Your task to perform on an android device: Open the Play Movies app and select the watchlist tab. Image 0: 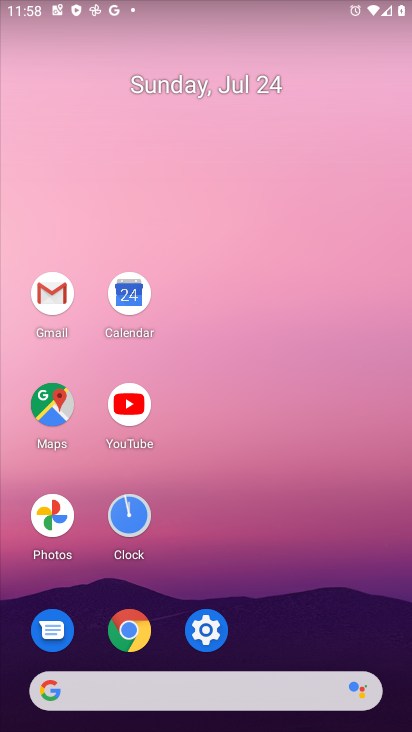
Step 0: drag from (272, 583) to (262, 33)
Your task to perform on an android device: Open the Play Movies app and select the watchlist tab. Image 1: 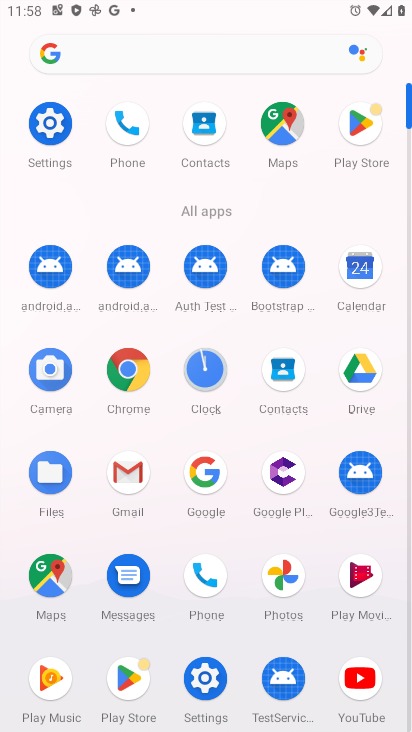
Step 1: click (357, 581)
Your task to perform on an android device: Open the Play Movies app and select the watchlist tab. Image 2: 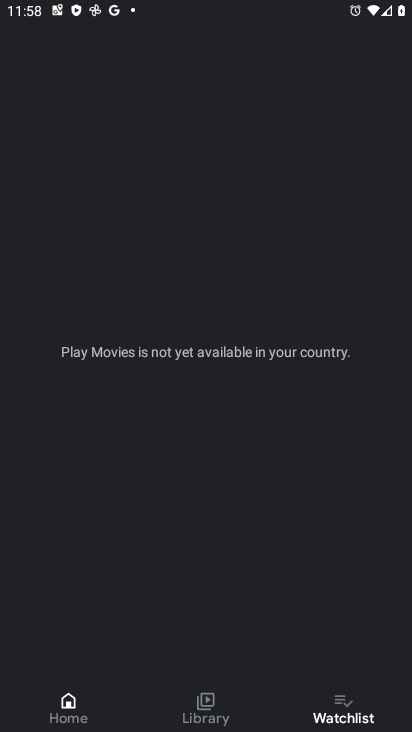
Step 2: click (334, 711)
Your task to perform on an android device: Open the Play Movies app and select the watchlist tab. Image 3: 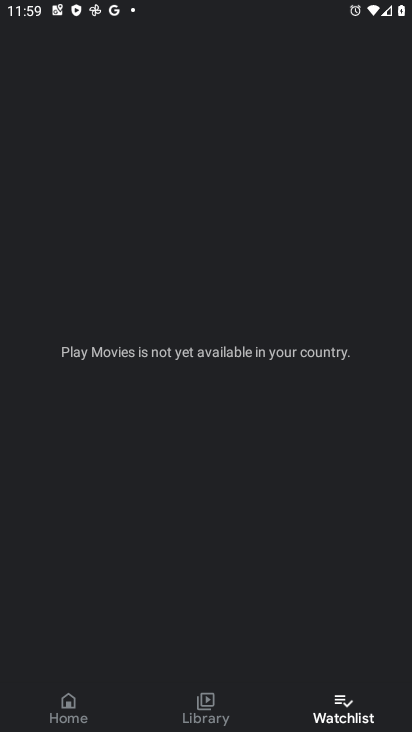
Step 3: task complete